Your task to perform on an android device: What's the weather going to be tomorrow? Image 0: 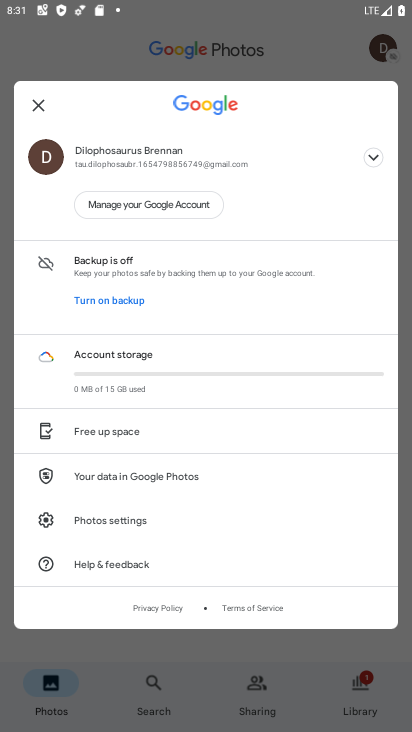
Step 0: press home button
Your task to perform on an android device: What's the weather going to be tomorrow? Image 1: 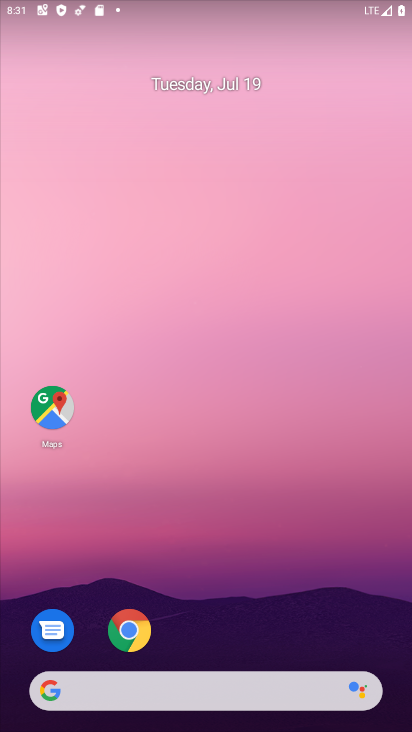
Step 1: drag from (240, 628) to (232, 8)
Your task to perform on an android device: What's the weather going to be tomorrow? Image 2: 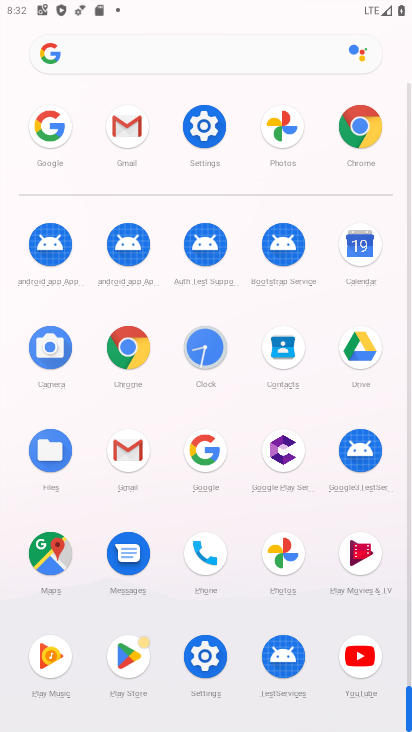
Step 2: click (199, 484)
Your task to perform on an android device: What's the weather going to be tomorrow? Image 3: 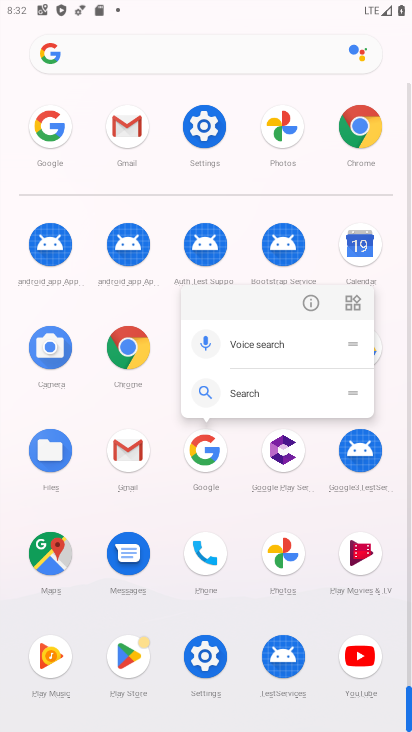
Step 3: click (199, 484)
Your task to perform on an android device: What's the weather going to be tomorrow? Image 4: 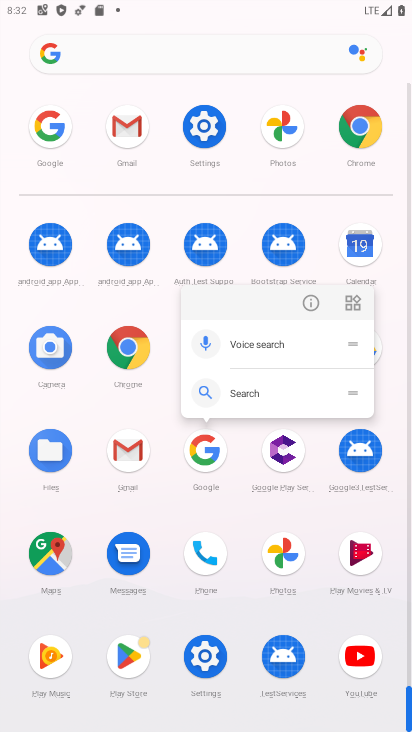
Step 4: click (213, 465)
Your task to perform on an android device: What's the weather going to be tomorrow? Image 5: 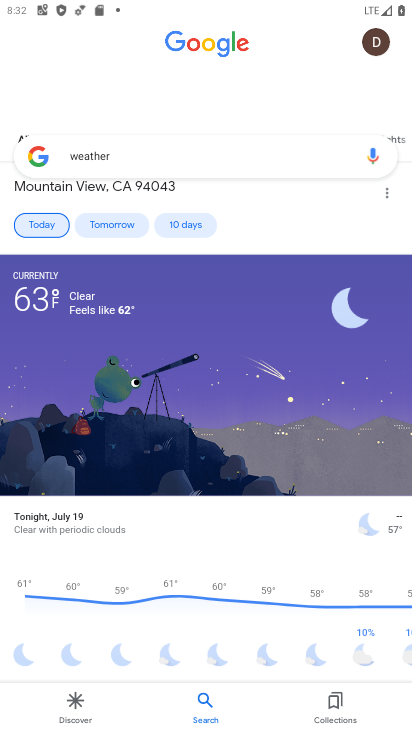
Step 5: click (110, 232)
Your task to perform on an android device: What's the weather going to be tomorrow? Image 6: 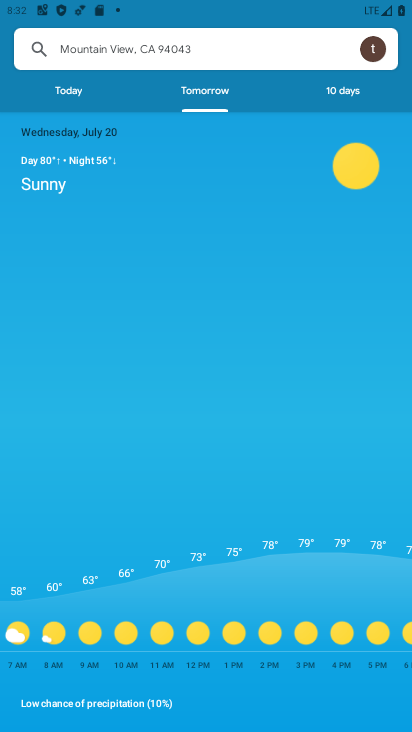
Step 6: task complete